Your task to perform on an android device: toggle show notifications on the lock screen Image 0: 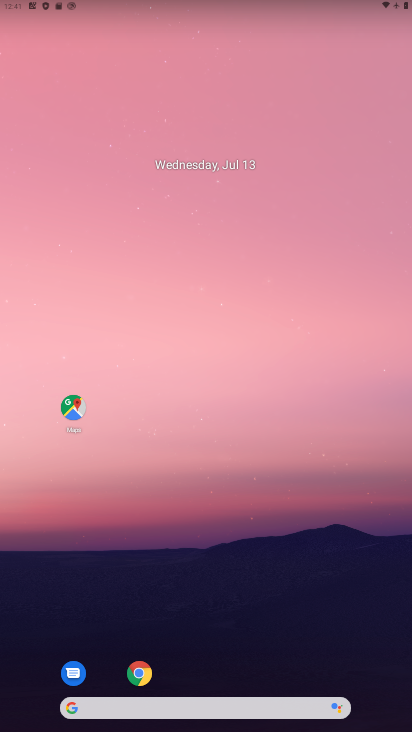
Step 0: drag from (300, 632) to (312, 145)
Your task to perform on an android device: toggle show notifications on the lock screen Image 1: 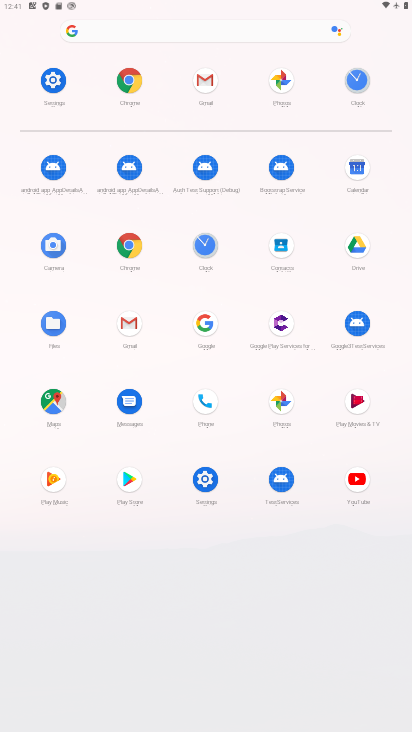
Step 1: click (59, 88)
Your task to perform on an android device: toggle show notifications on the lock screen Image 2: 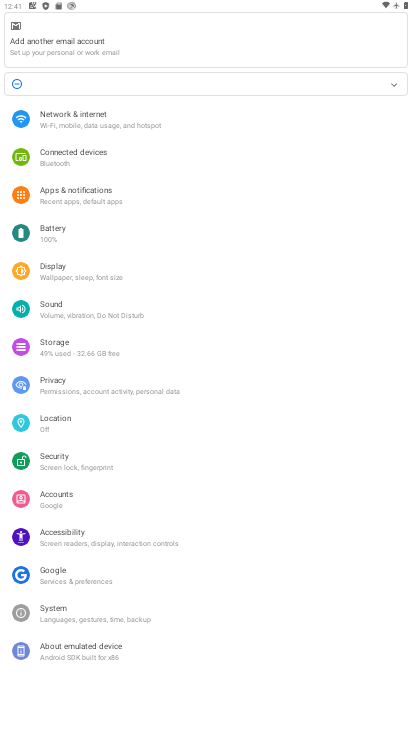
Step 2: click (54, 184)
Your task to perform on an android device: toggle show notifications on the lock screen Image 3: 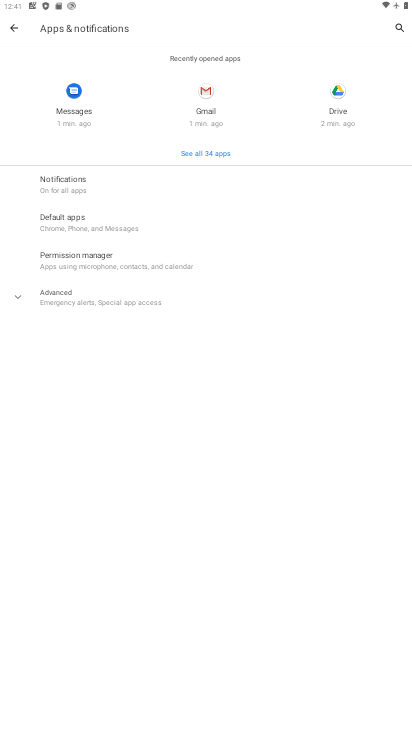
Step 3: click (73, 186)
Your task to perform on an android device: toggle show notifications on the lock screen Image 4: 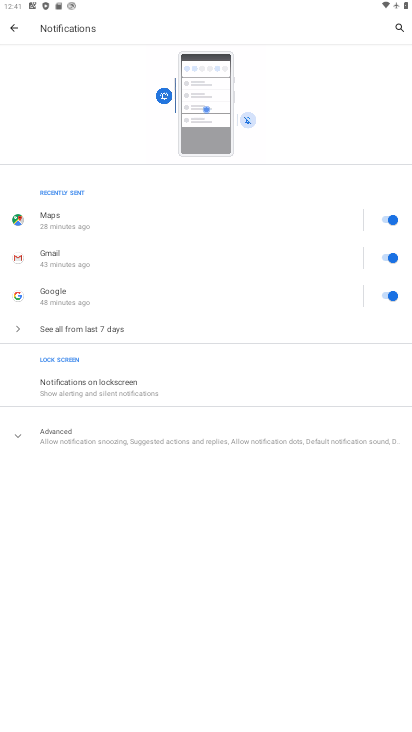
Step 4: click (88, 393)
Your task to perform on an android device: toggle show notifications on the lock screen Image 5: 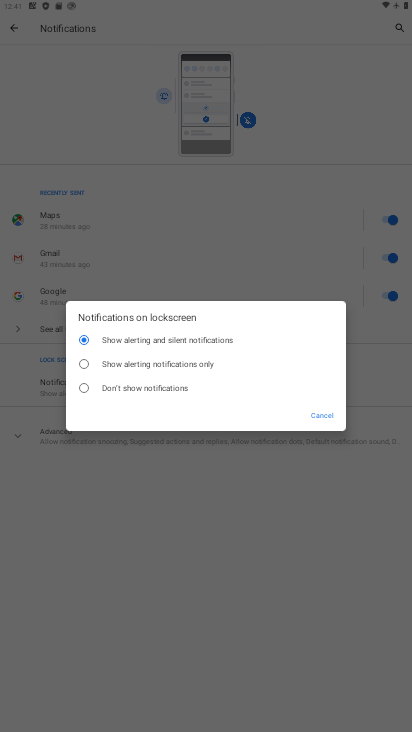
Step 5: click (170, 363)
Your task to perform on an android device: toggle show notifications on the lock screen Image 6: 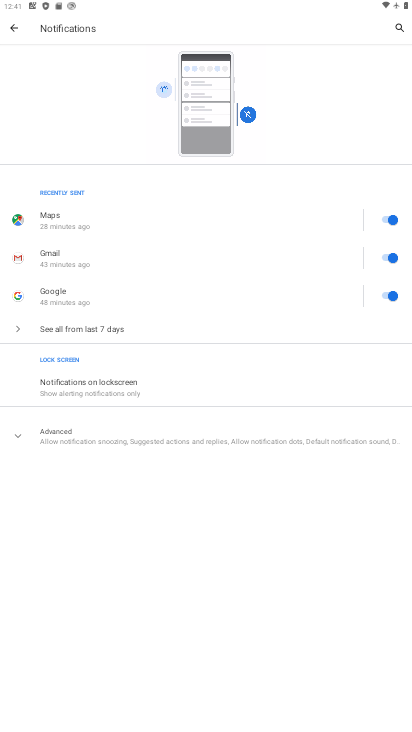
Step 6: task complete